Your task to perform on an android device: change alarm snooze length Image 0: 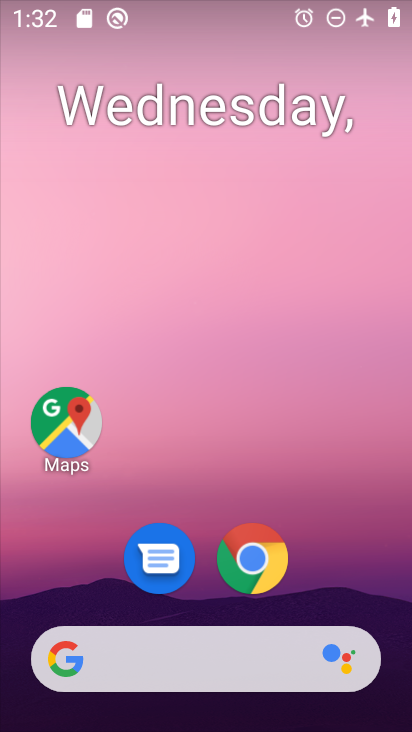
Step 0: drag from (398, 628) to (320, 125)
Your task to perform on an android device: change alarm snooze length Image 1: 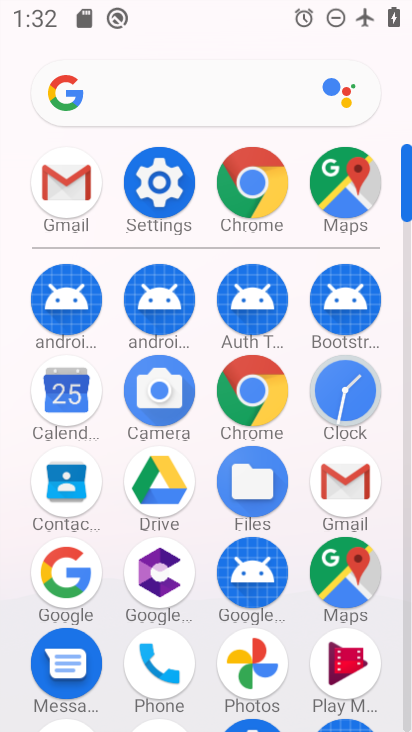
Step 1: click (369, 405)
Your task to perform on an android device: change alarm snooze length Image 2: 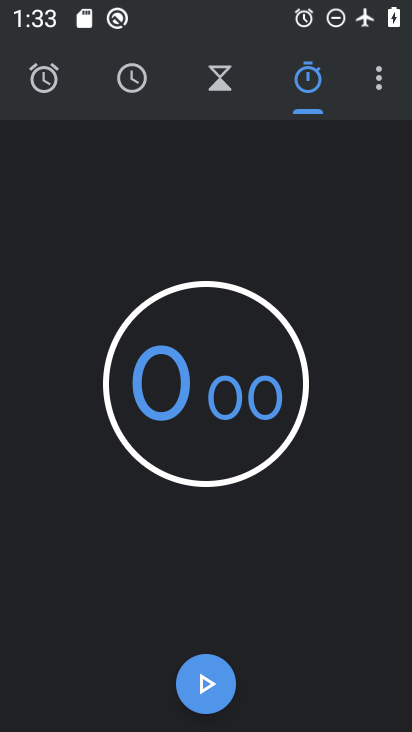
Step 2: click (375, 77)
Your task to perform on an android device: change alarm snooze length Image 3: 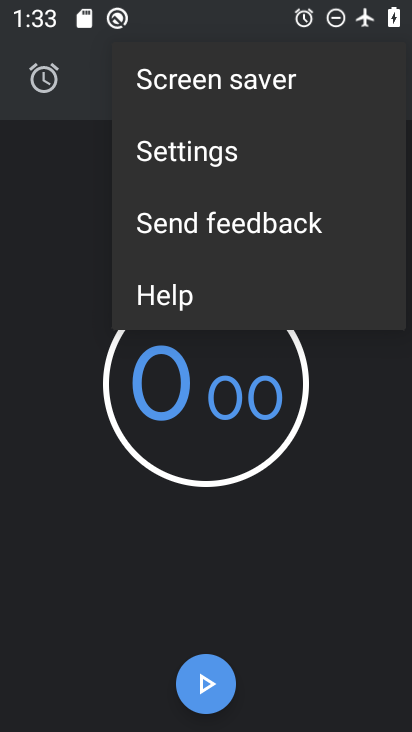
Step 3: click (264, 153)
Your task to perform on an android device: change alarm snooze length Image 4: 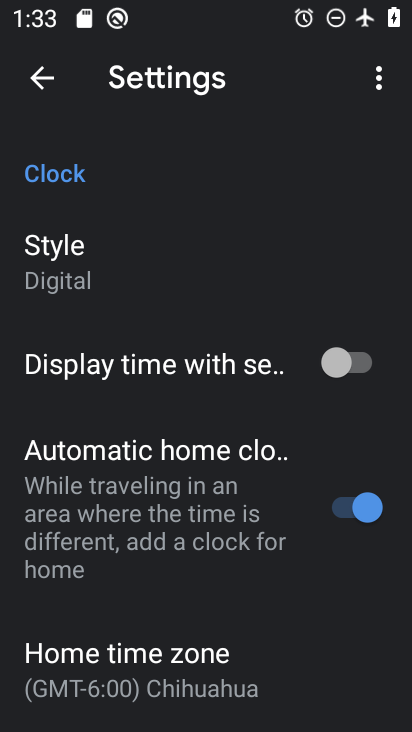
Step 4: drag from (193, 662) to (196, 182)
Your task to perform on an android device: change alarm snooze length Image 5: 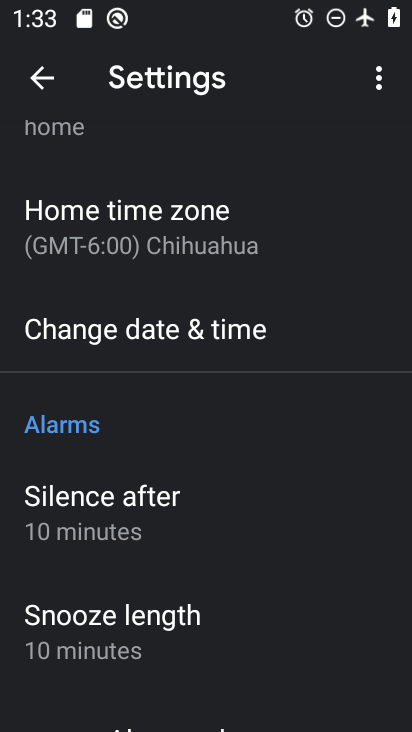
Step 5: click (178, 644)
Your task to perform on an android device: change alarm snooze length Image 6: 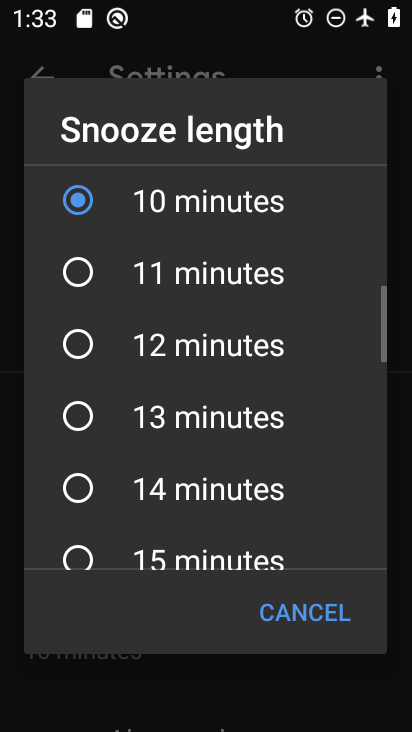
Step 6: click (73, 545)
Your task to perform on an android device: change alarm snooze length Image 7: 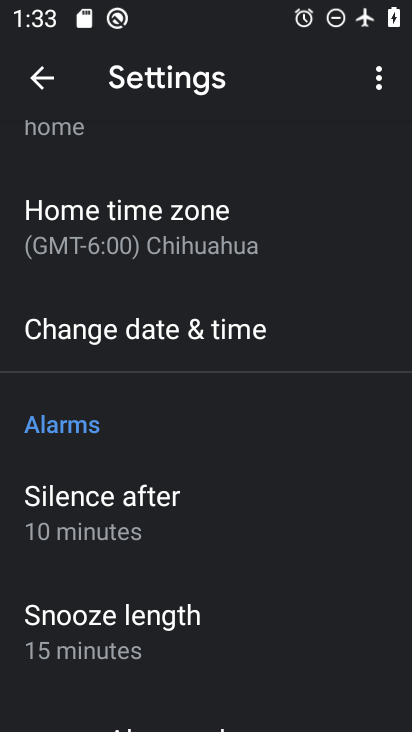
Step 7: task complete